Your task to perform on an android device: toggle notifications settings in the gmail app Image 0: 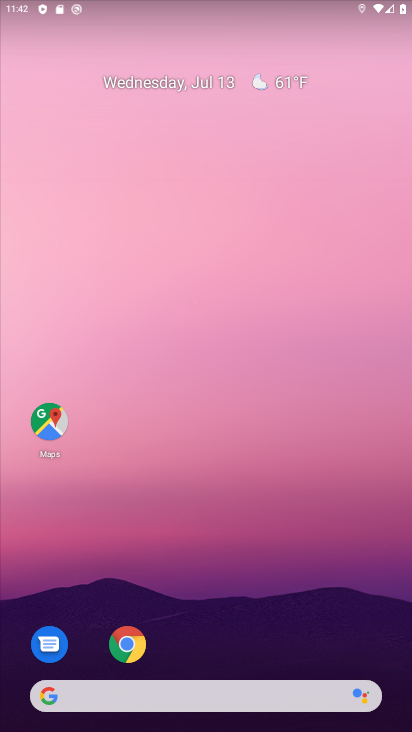
Step 0: drag from (202, 630) to (236, 196)
Your task to perform on an android device: toggle notifications settings in the gmail app Image 1: 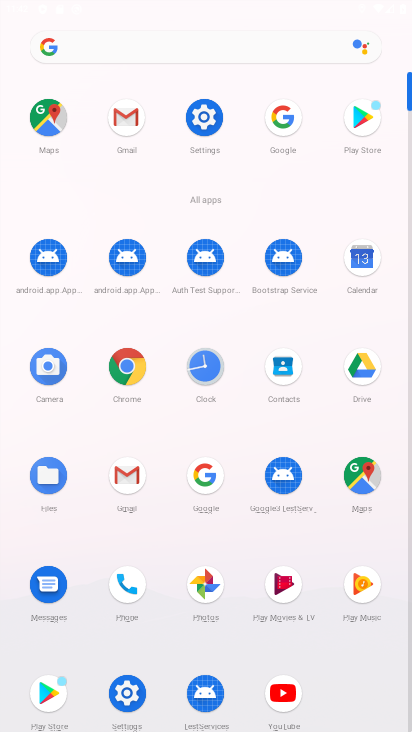
Step 1: click (127, 480)
Your task to perform on an android device: toggle notifications settings in the gmail app Image 2: 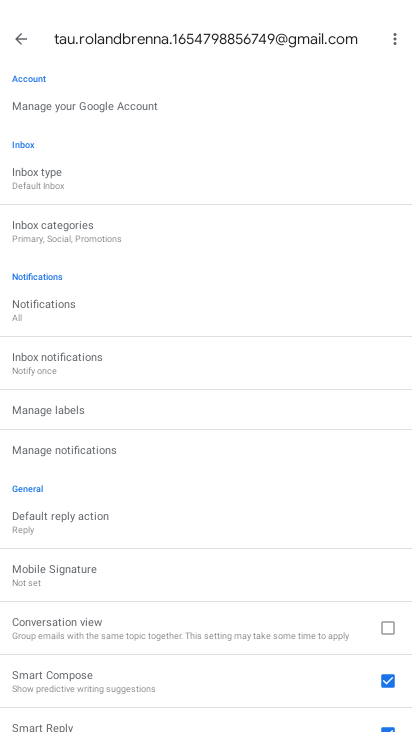
Step 2: click (87, 313)
Your task to perform on an android device: toggle notifications settings in the gmail app Image 3: 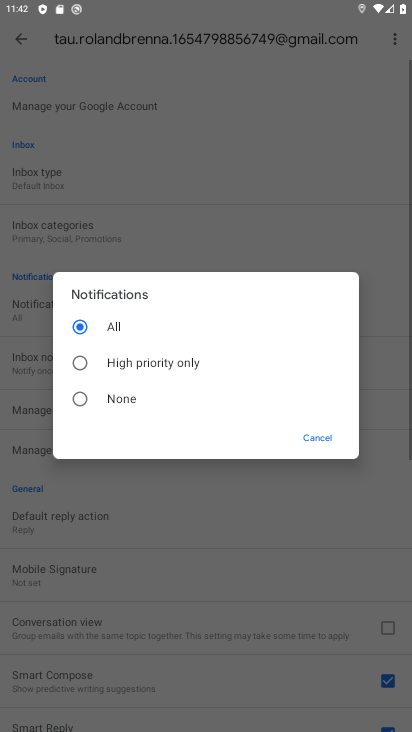
Step 3: click (91, 403)
Your task to perform on an android device: toggle notifications settings in the gmail app Image 4: 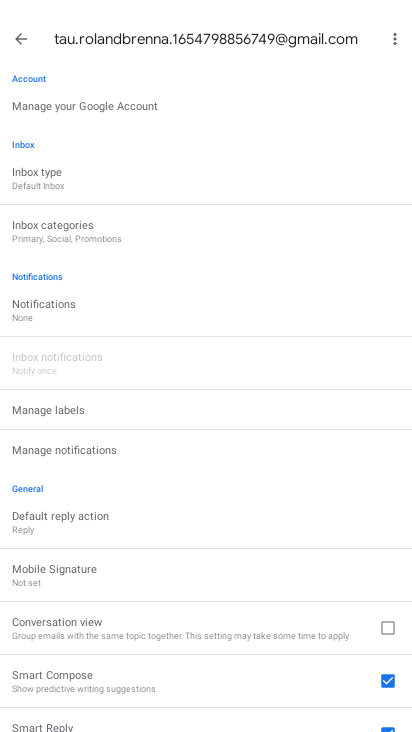
Step 4: task complete